Your task to perform on an android device: move a message to another label in the gmail app Image 0: 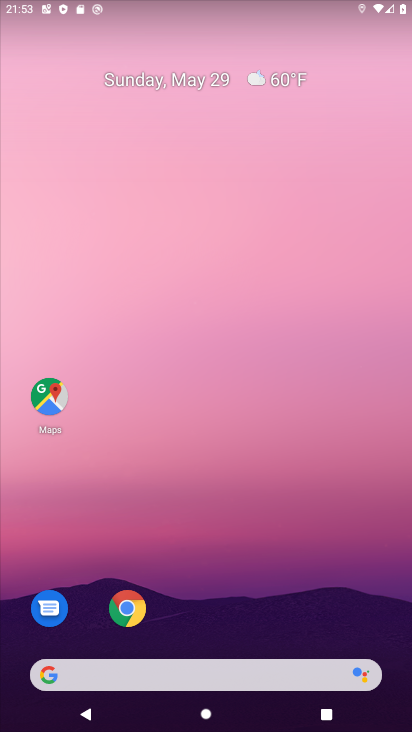
Step 0: drag from (377, 619) to (345, 109)
Your task to perform on an android device: move a message to another label in the gmail app Image 1: 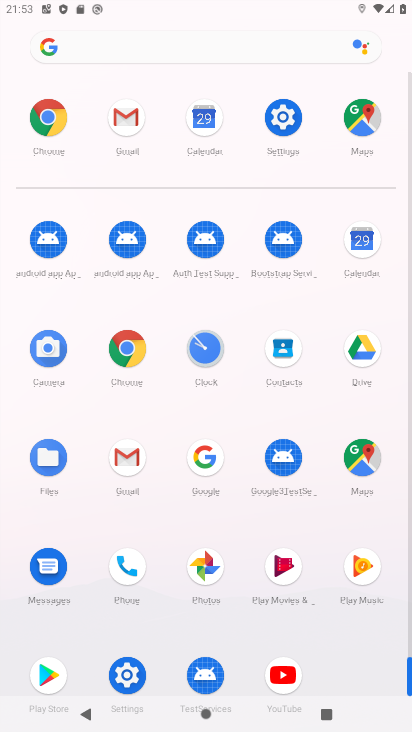
Step 1: click (122, 473)
Your task to perform on an android device: move a message to another label in the gmail app Image 2: 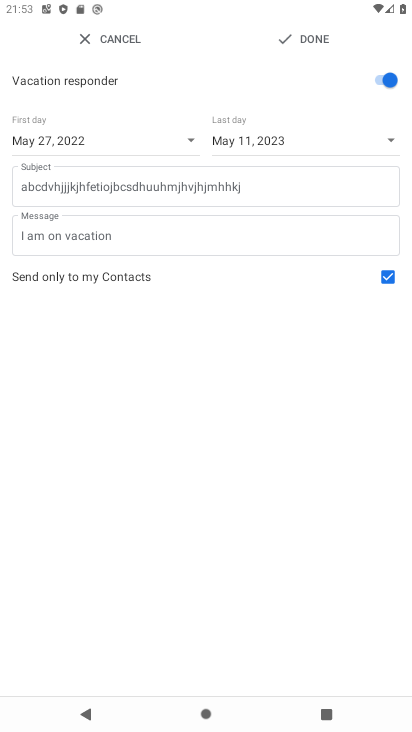
Step 2: press back button
Your task to perform on an android device: move a message to another label in the gmail app Image 3: 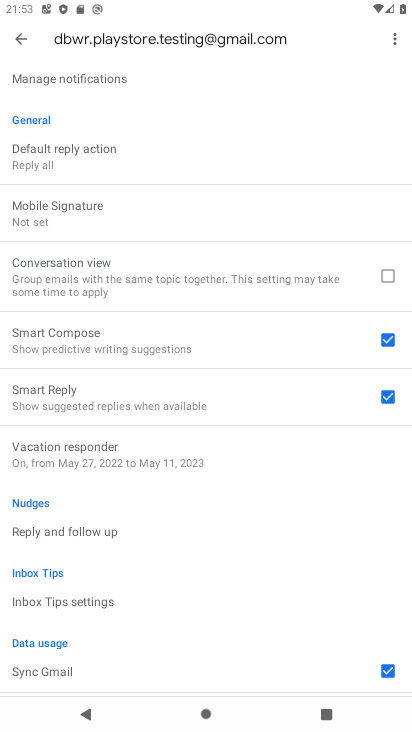
Step 3: click (6, 31)
Your task to perform on an android device: move a message to another label in the gmail app Image 4: 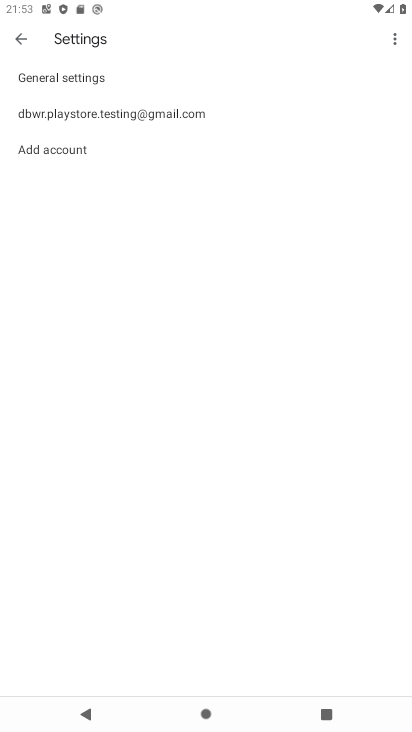
Step 4: click (10, 38)
Your task to perform on an android device: move a message to another label in the gmail app Image 5: 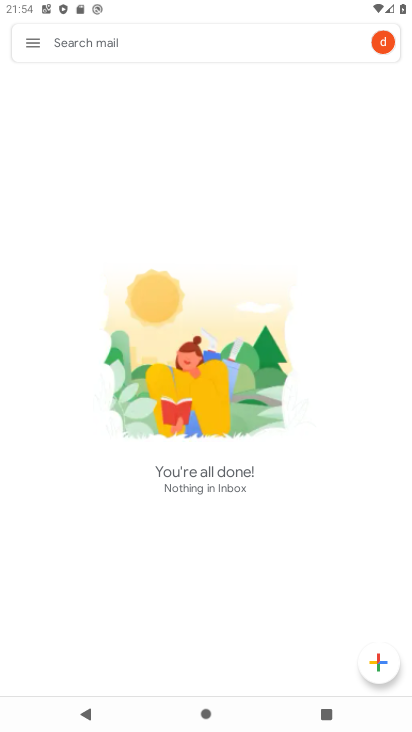
Step 5: task complete